Your task to perform on an android device: What's the weather like in Los Angeles? Image 0: 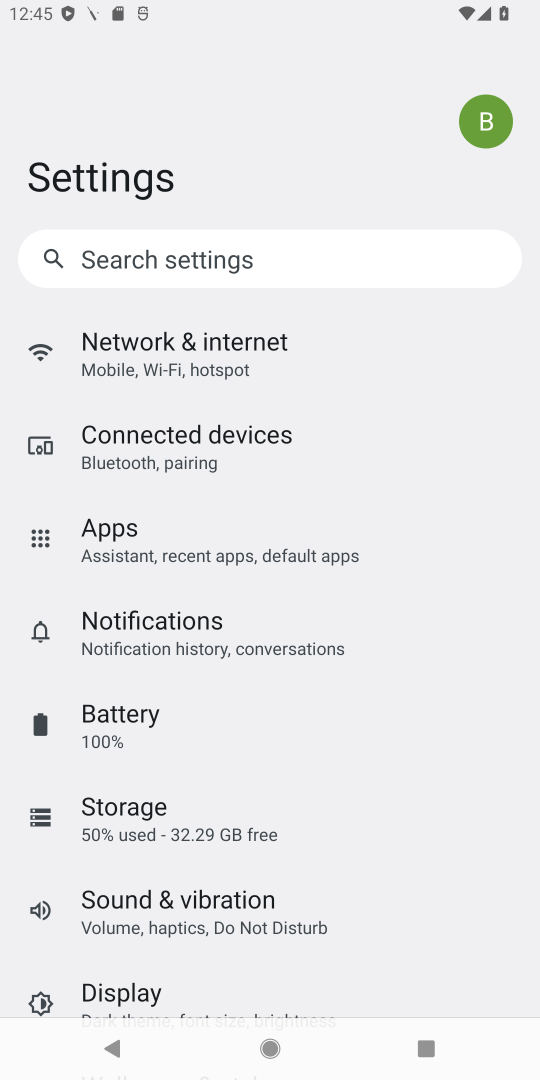
Step 0: press home button
Your task to perform on an android device: What's the weather like in Los Angeles? Image 1: 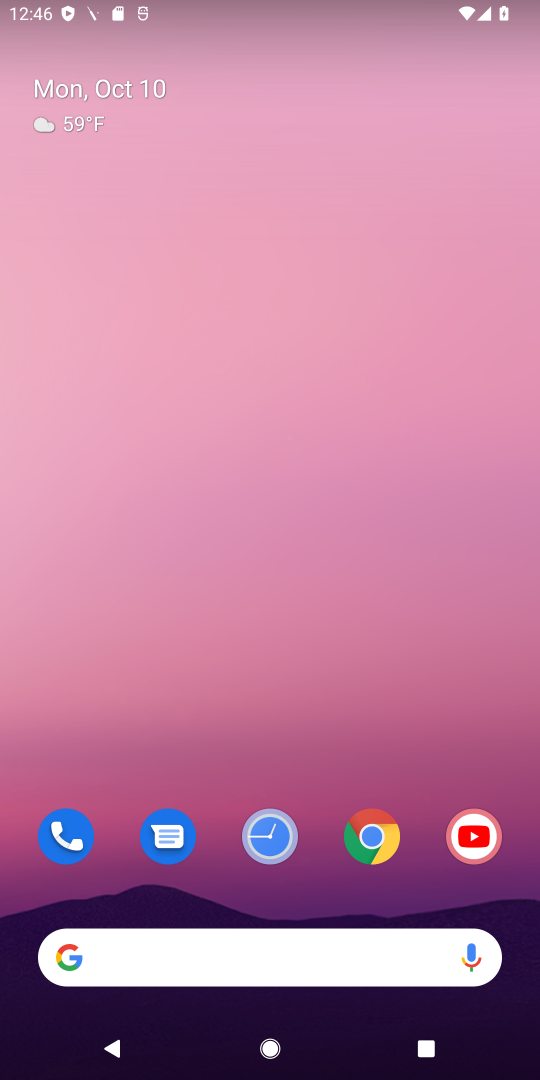
Step 1: click (388, 834)
Your task to perform on an android device: What's the weather like in Los Angeles? Image 2: 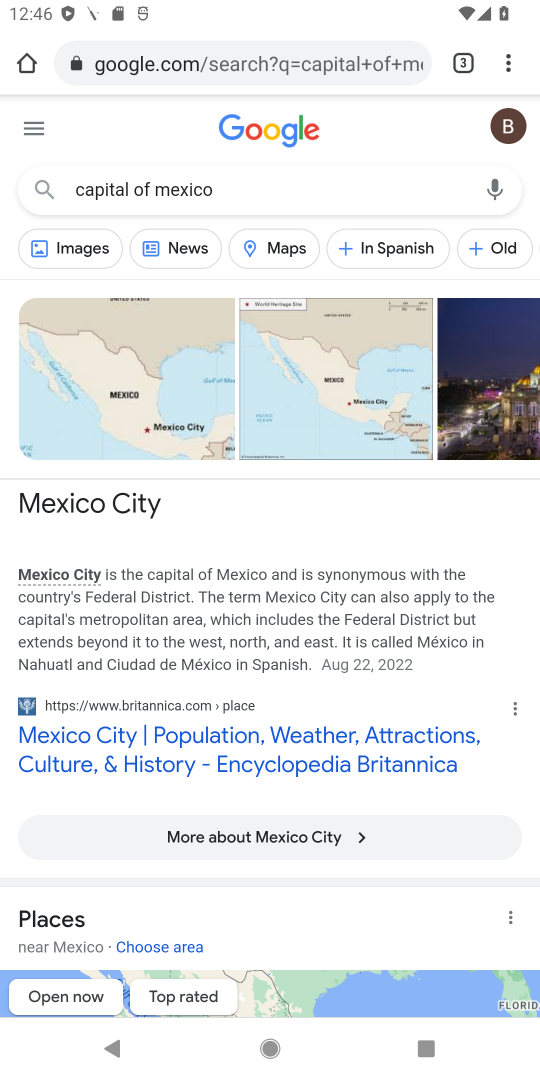
Step 2: click (278, 54)
Your task to perform on an android device: What's the weather like in Los Angeles? Image 3: 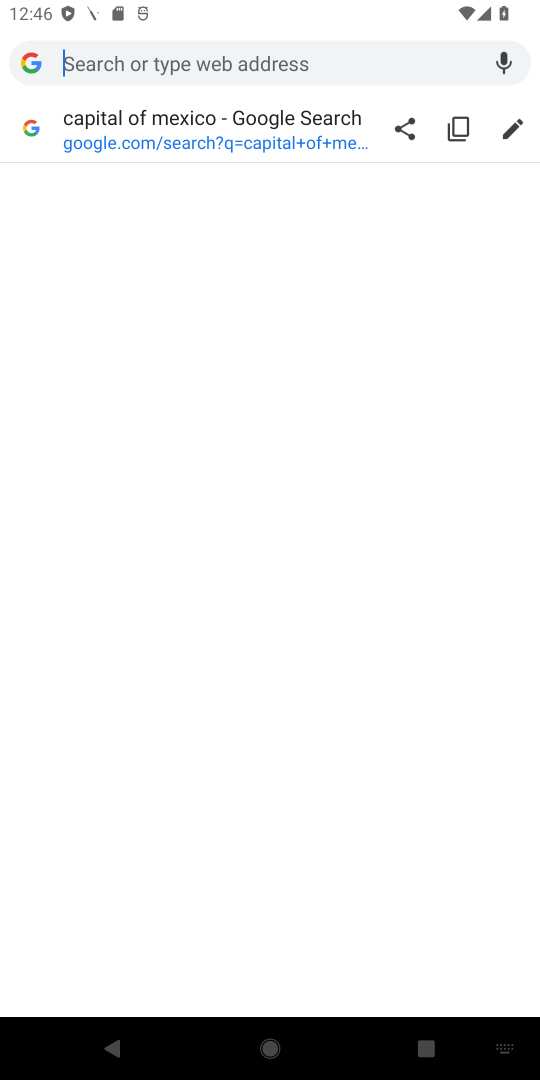
Step 3: type "weather like in Los Angeles?"
Your task to perform on an android device: What's the weather like in Los Angeles? Image 4: 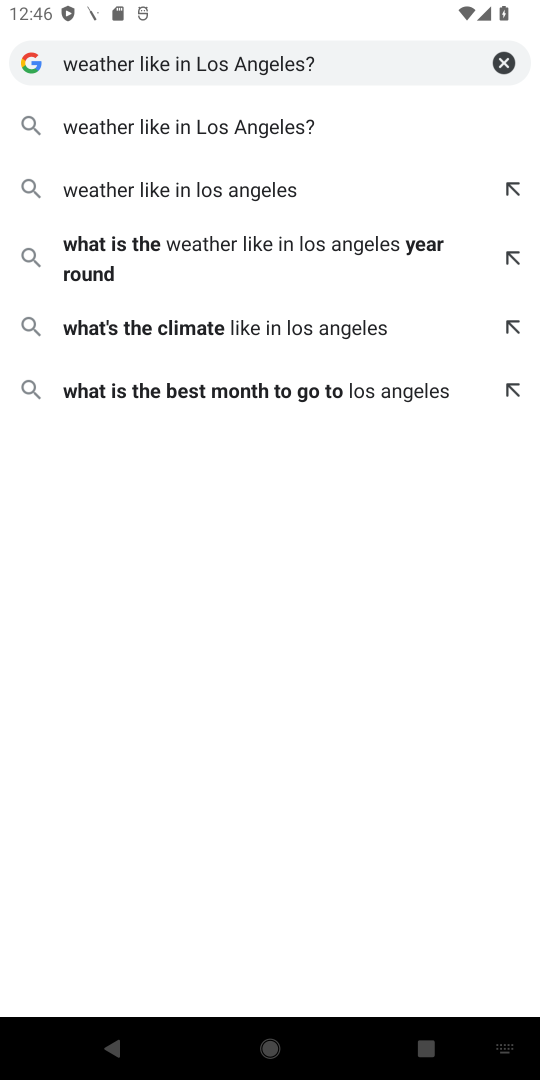
Step 4: click (263, 121)
Your task to perform on an android device: What's the weather like in Los Angeles? Image 5: 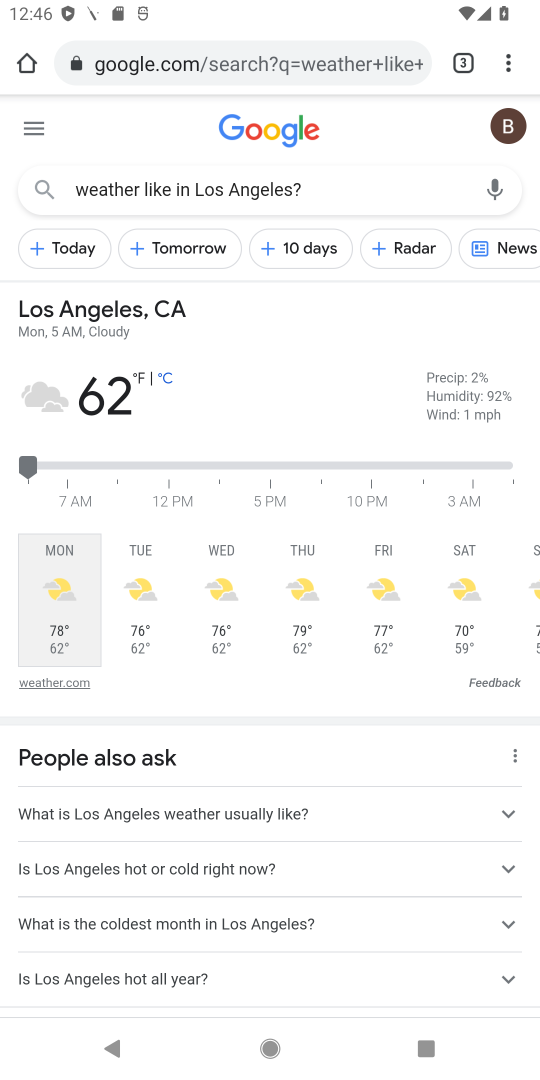
Step 5: task complete